Your task to perform on an android device: Go to battery settings Image 0: 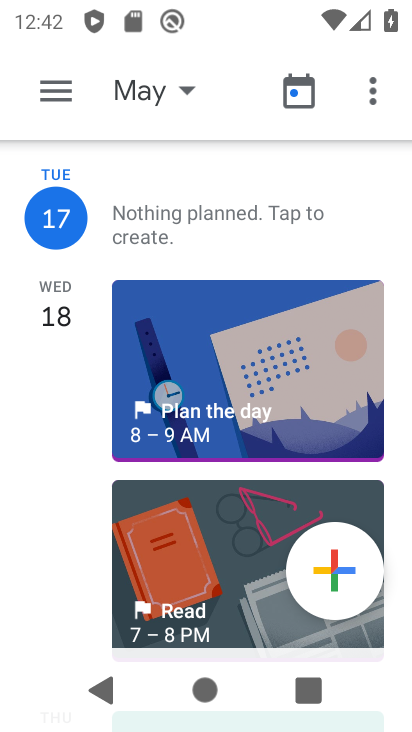
Step 0: press home button
Your task to perform on an android device: Go to battery settings Image 1: 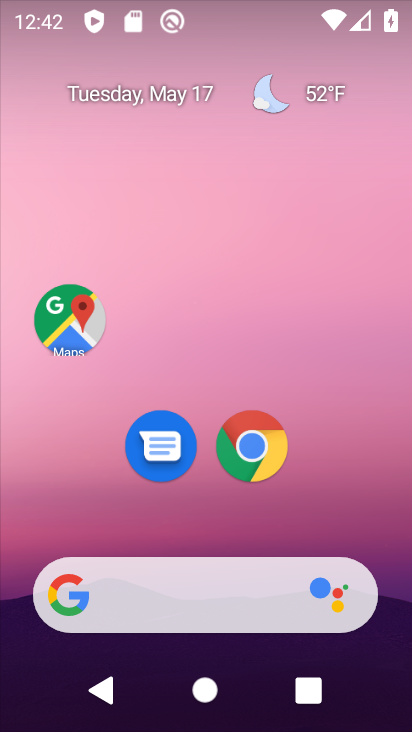
Step 1: drag from (340, 466) to (275, 156)
Your task to perform on an android device: Go to battery settings Image 2: 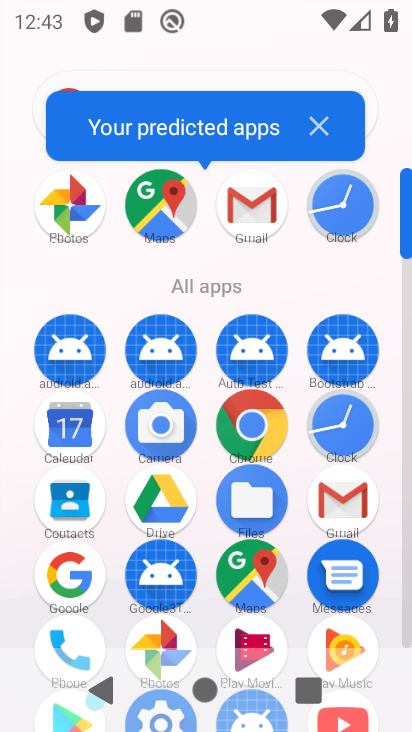
Step 2: drag from (190, 294) to (188, 118)
Your task to perform on an android device: Go to battery settings Image 3: 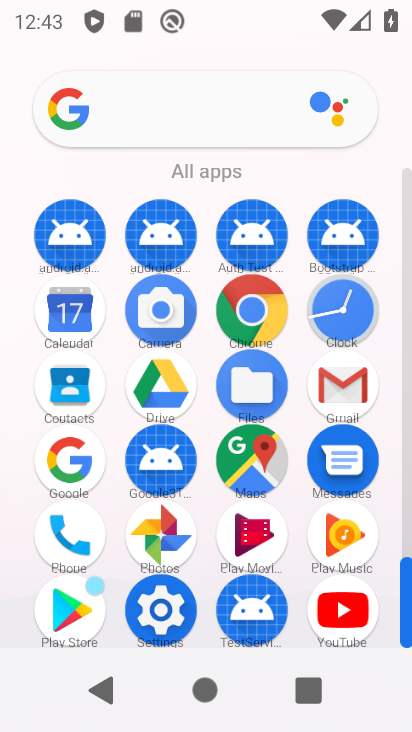
Step 3: click (159, 622)
Your task to perform on an android device: Go to battery settings Image 4: 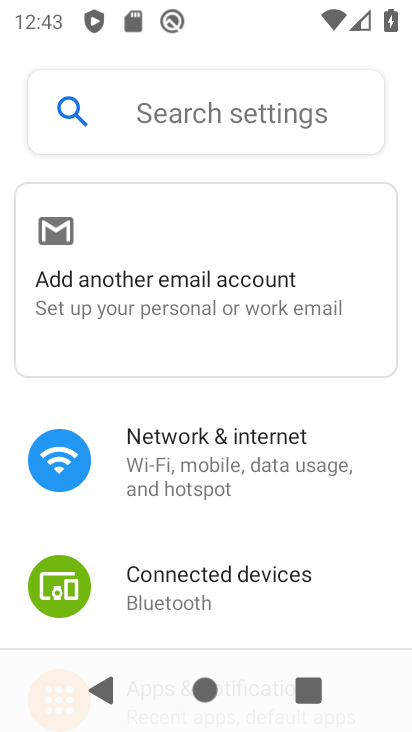
Step 4: drag from (214, 525) to (214, 278)
Your task to perform on an android device: Go to battery settings Image 5: 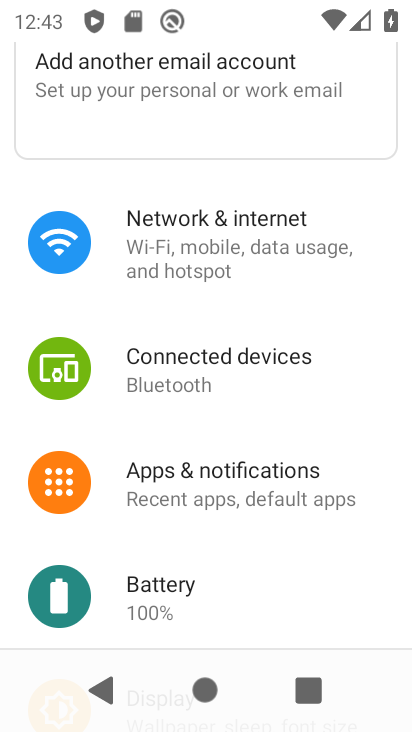
Step 5: click (180, 590)
Your task to perform on an android device: Go to battery settings Image 6: 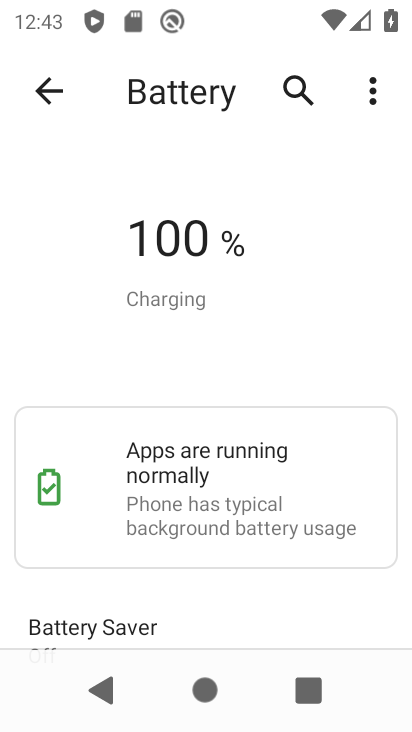
Step 6: task complete